Your task to perform on an android device: Turn on the flashlight Image 0: 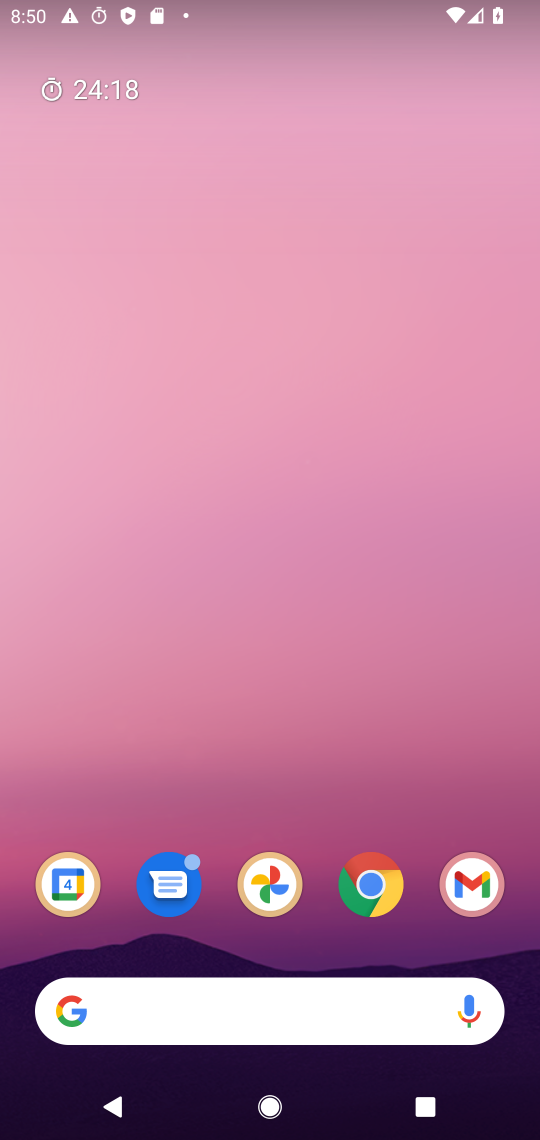
Step 0: drag from (287, 309) to (319, 1134)
Your task to perform on an android device: Turn on the flashlight Image 1: 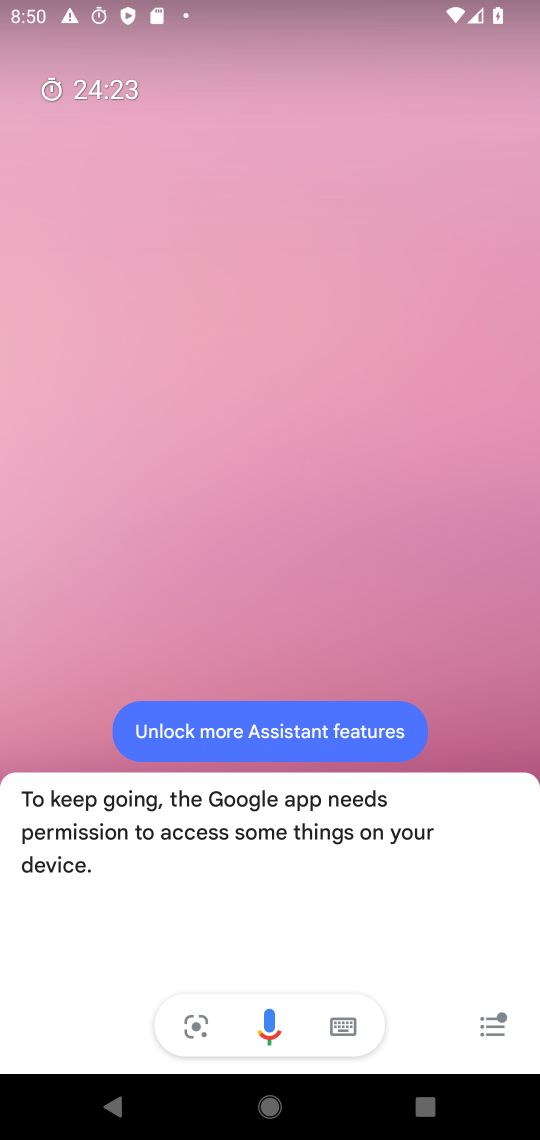
Step 1: click (322, 352)
Your task to perform on an android device: Turn on the flashlight Image 2: 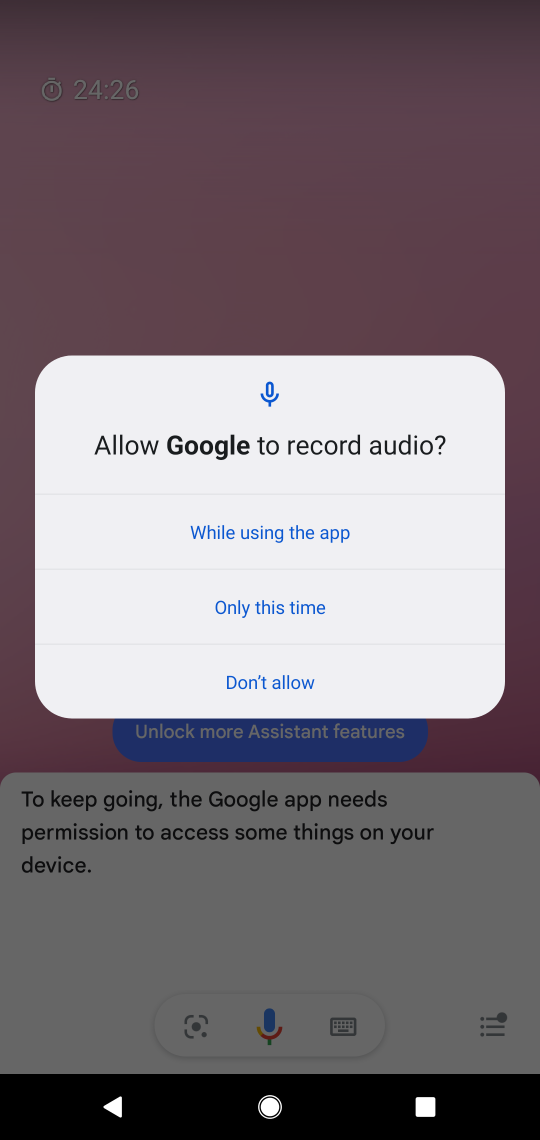
Step 2: click (266, 691)
Your task to perform on an android device: Turn on the flashlight Image 3: 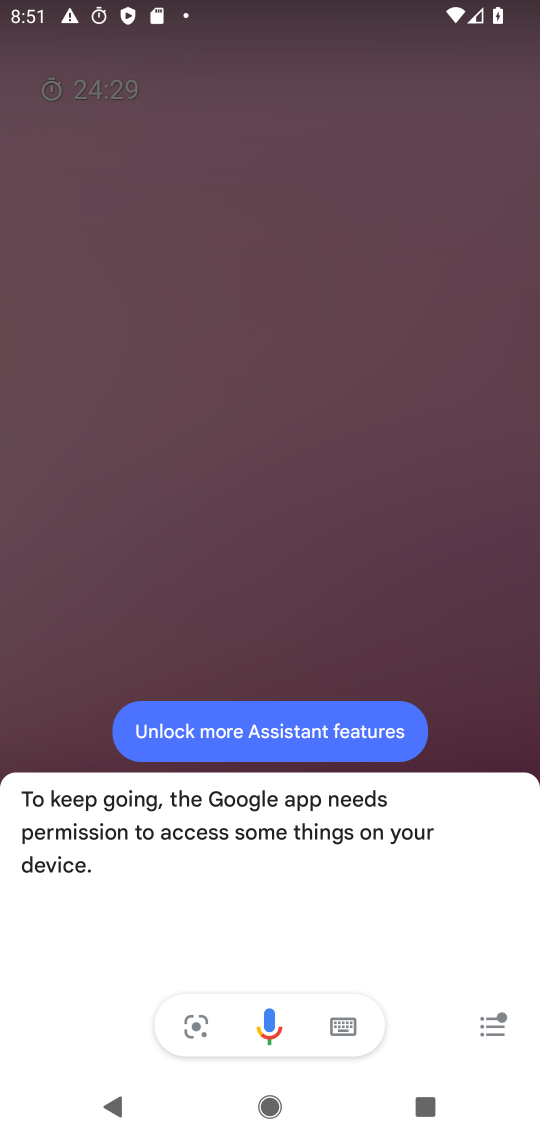
Step 3: click (273, 462)
Your task to perform on an android device: Turn on the flashlight Image 4: 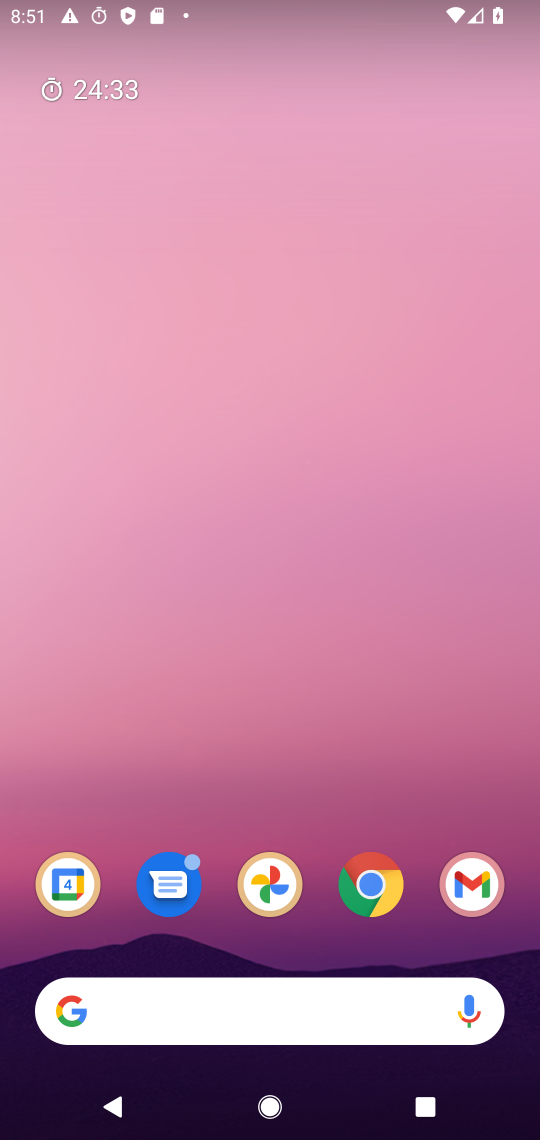
Step 4: drag from (289, 0) to (344, 738)
Your task to perform on an android device: Turn on the flashlight Image 5: 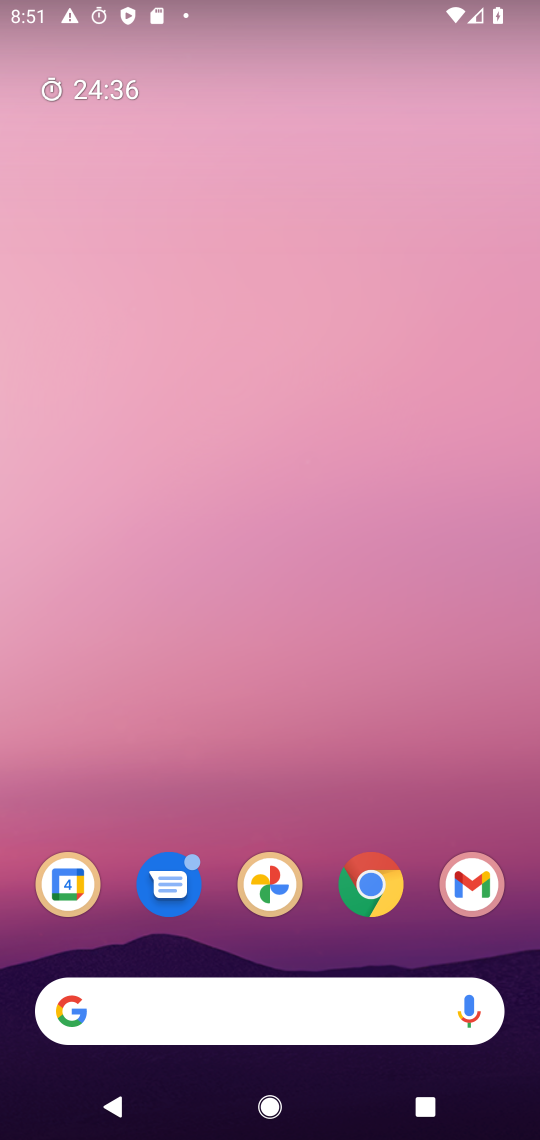
Step 5: drag from (302, 102) to (274, 878)
Your task to perform on an android device: Turn on the flashlight Image 6: 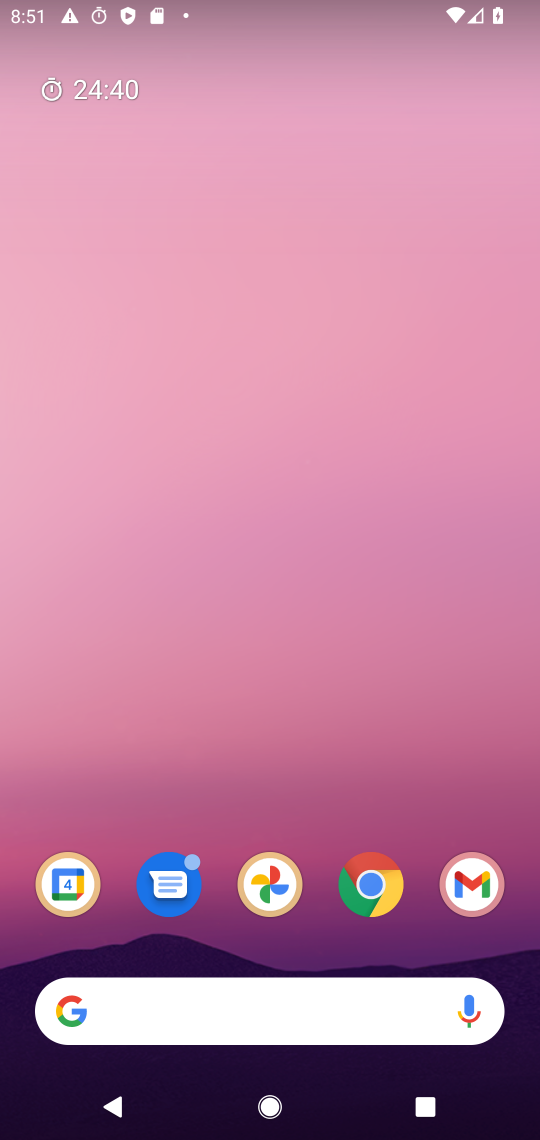
Step 6: drag from (301, 35) to (207, 792)
Your task to perform on an android device: Turn on the flashlight Image 7: 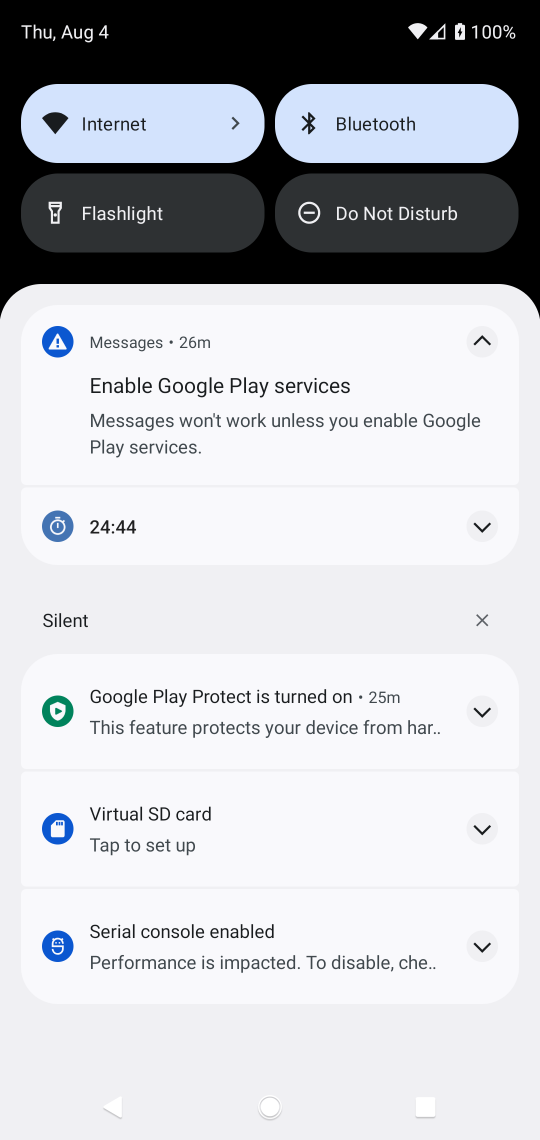
Step 7: click (128, 234)
Your task to perform on an android device: Turn on the flashlight Image 8: 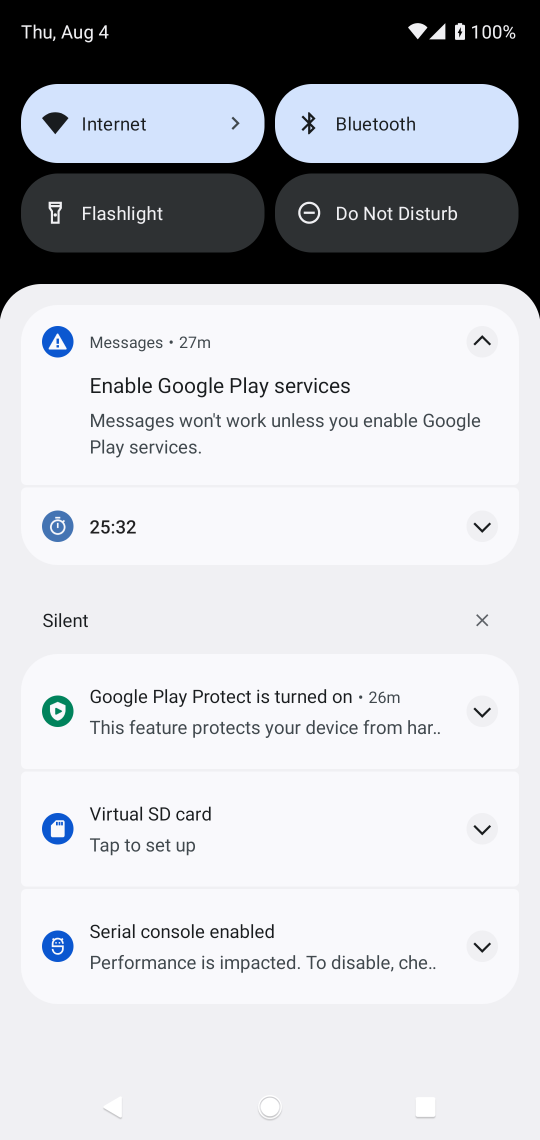
Step 8: task complete